Your task to perform on an android device: change timer sound Image 0: 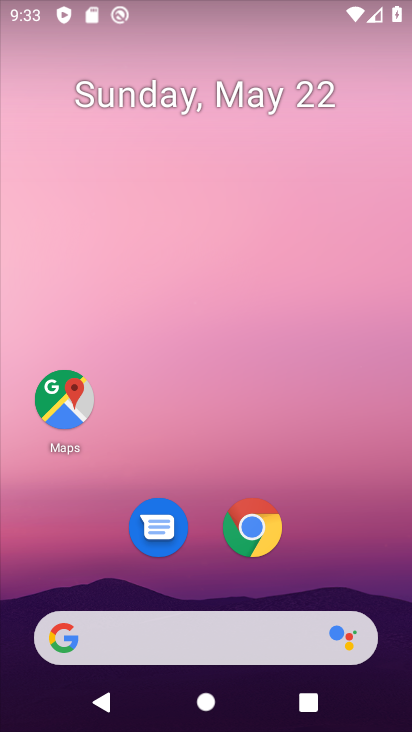
Step 0: drag from (338, 577) to (255, 64)
Your task to perform on an android device: change timer sound Image 1: 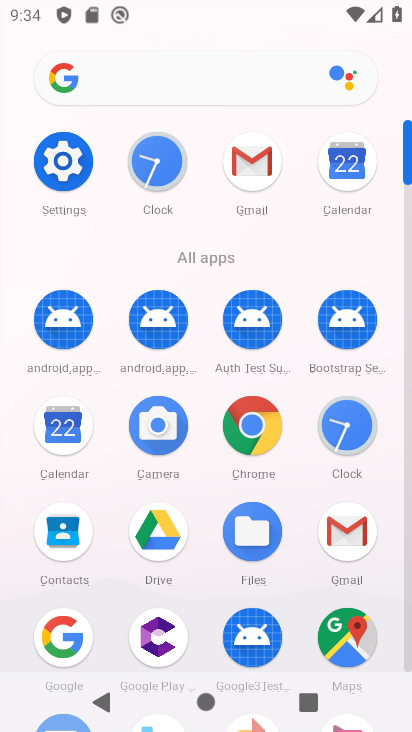
Step 1: click (87, 180)
Your task to perform on an android device: change timer sound Image 2: 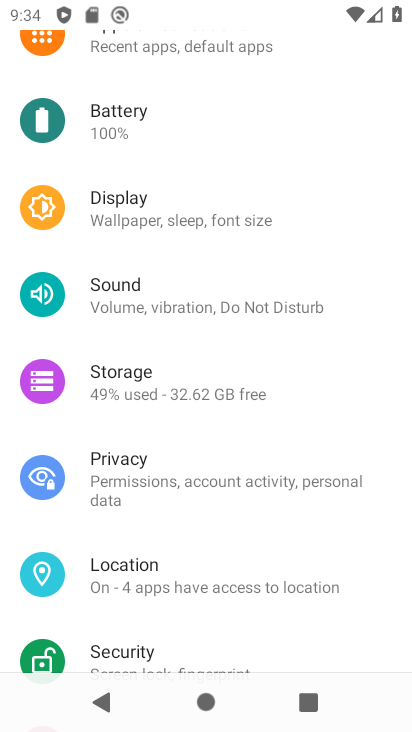
Step 2: click (131, 286)
Your task to perform on an android device: change timer sound Image 3: 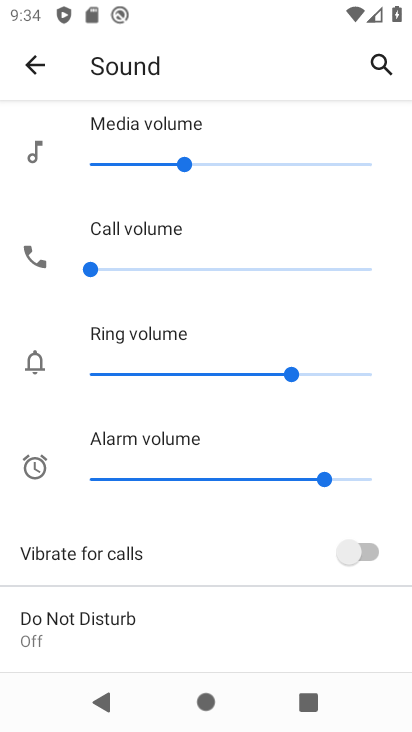
Step 3: click (43, 60)
Your task to perform on an android device: change timer sound Image 4: 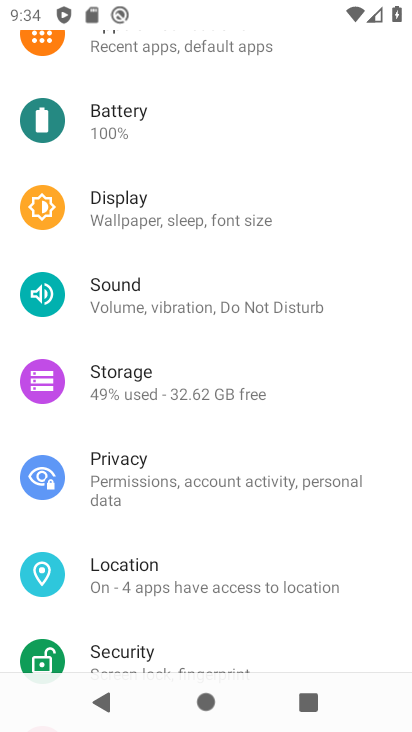
Step 4: press home button
Your task to perform on an android device: change timer sound Image 5: 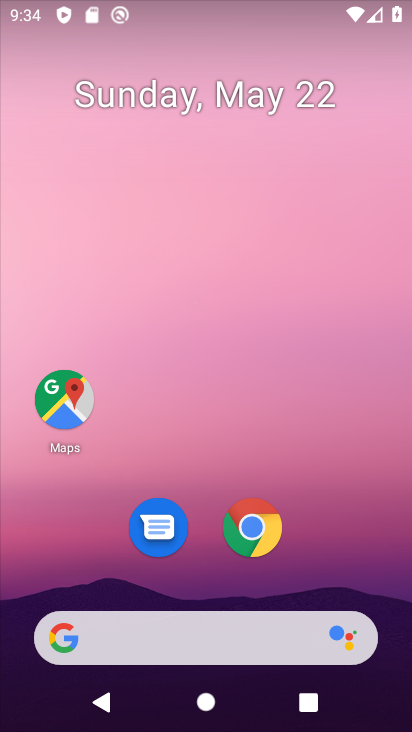
Step 5: drag from (344, 543) to (319, 39)
Your task to perform on an android device: change timer sound Image 6: 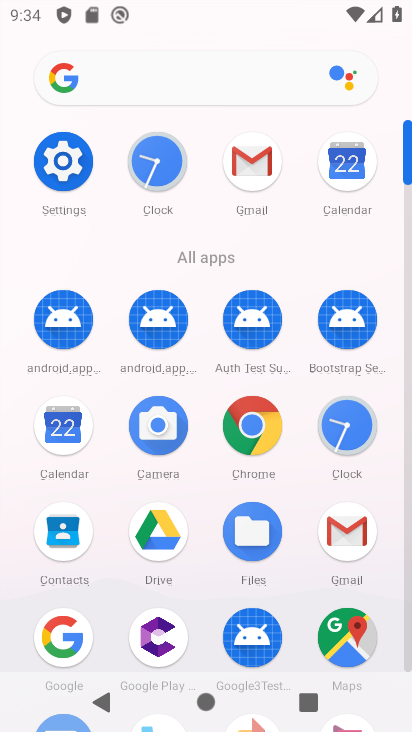
Step 6: click (167, 171)
Your task to perform on an android device: change timer sound Image 7: 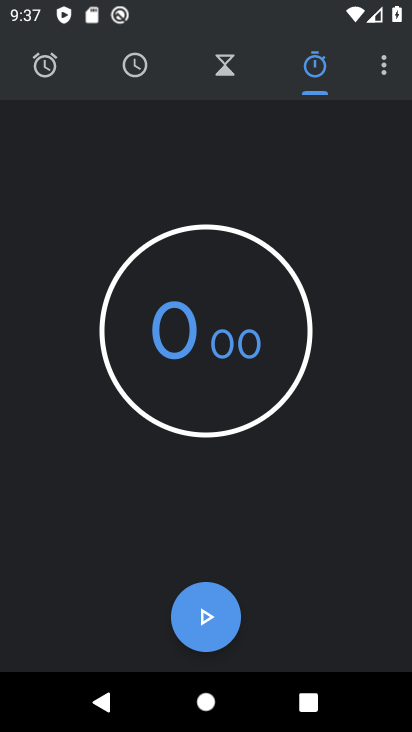
Step 7: task complete